Your task to perform on an android device: Search for Italian restaurants on Maps Image 0: 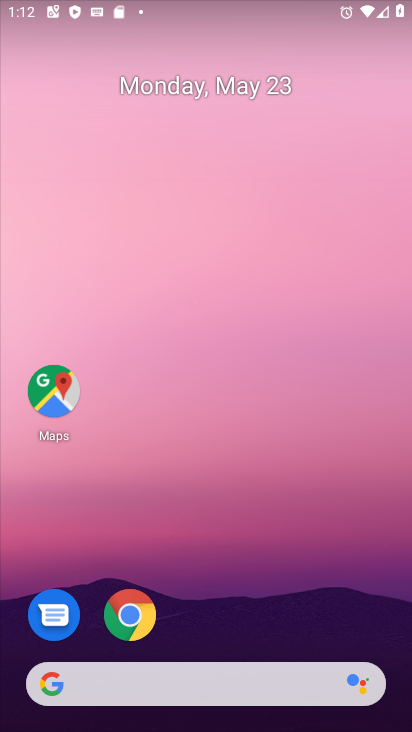
Step 0: drag from (219, 730) to (158, 71)
Your task to perform on an android device: Search for Italian restaurants on Maps Image 1: 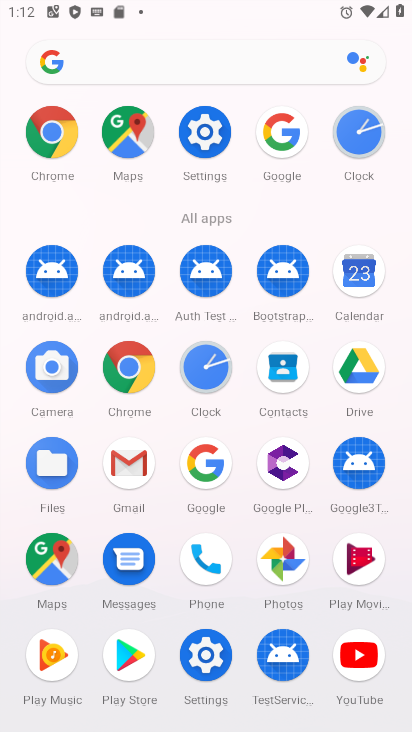
Step 1: click (53, 558)
Your task to perform on an android device: Search for Italian restaurants on Maps Image 2: 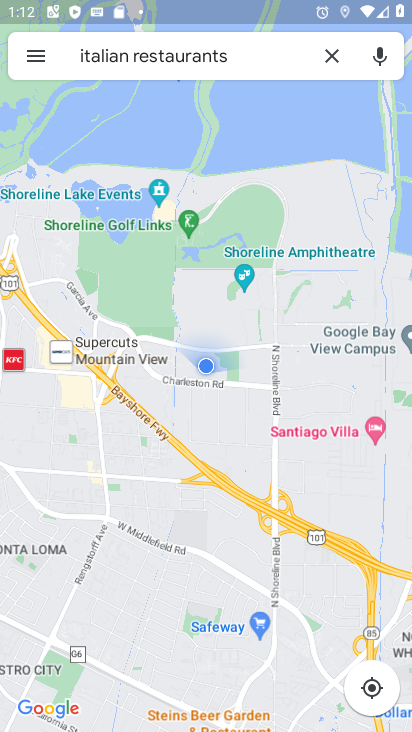
Step 2: click (239, 52)
Your task to perform on an android device: Search for Italian restaurants on Maps Image 3: 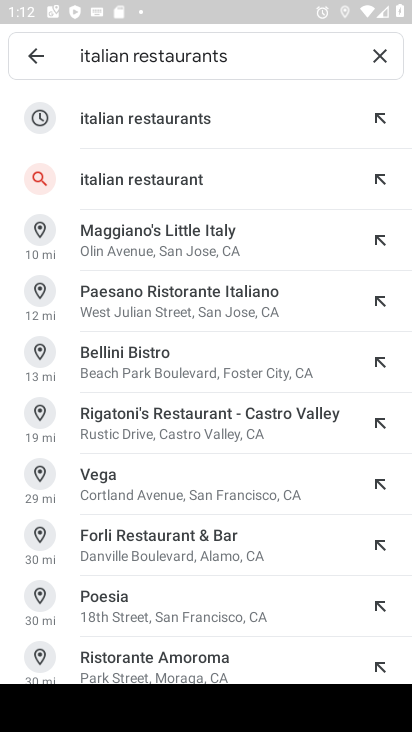
Step 3: click (173, 109)
Your task to perform on an android device: Search for Italian restaurants on Maps Image 4: 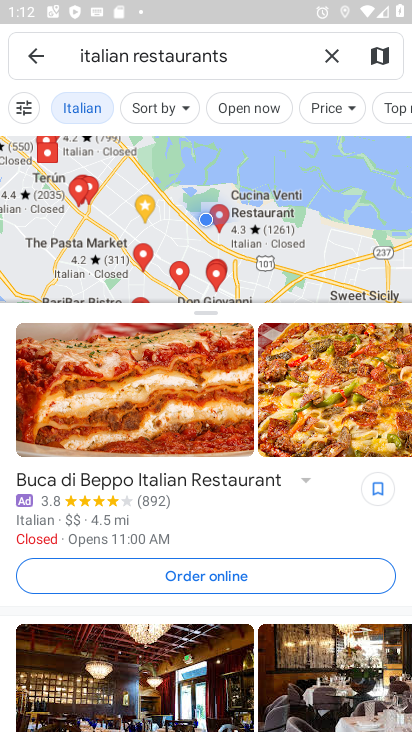
Step 4: task complete